Your task to perform on an android device: Add logitech g pro to the cart on target Image 0: 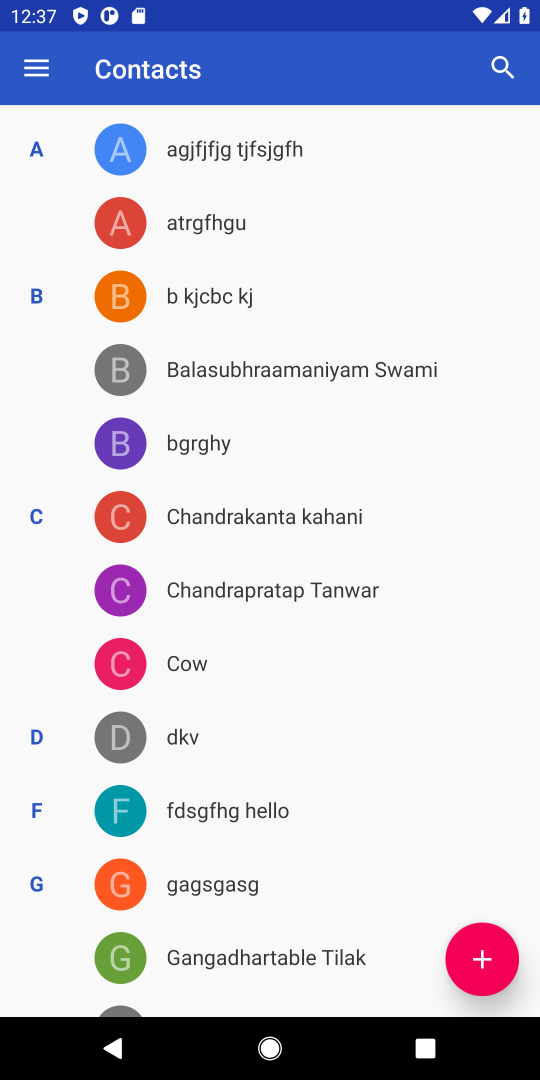
Step 0: press home button
Your task to perform on an android device: Add logitech g pro to the cart on target Image 1: 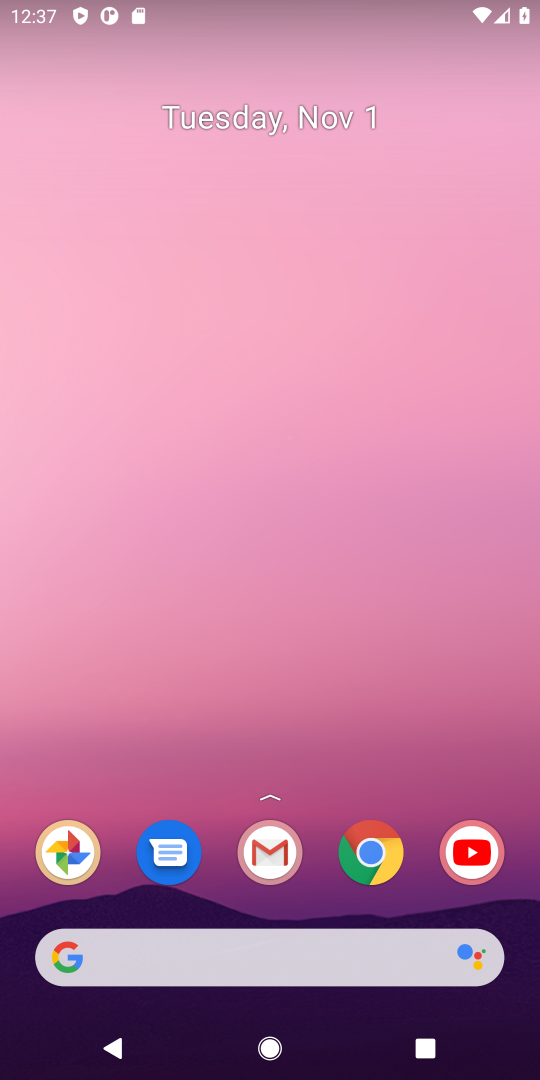
Step 1: click (384, 871)
Your task to perform on an android device: Add logitech g pro to the cart on target Image 2: 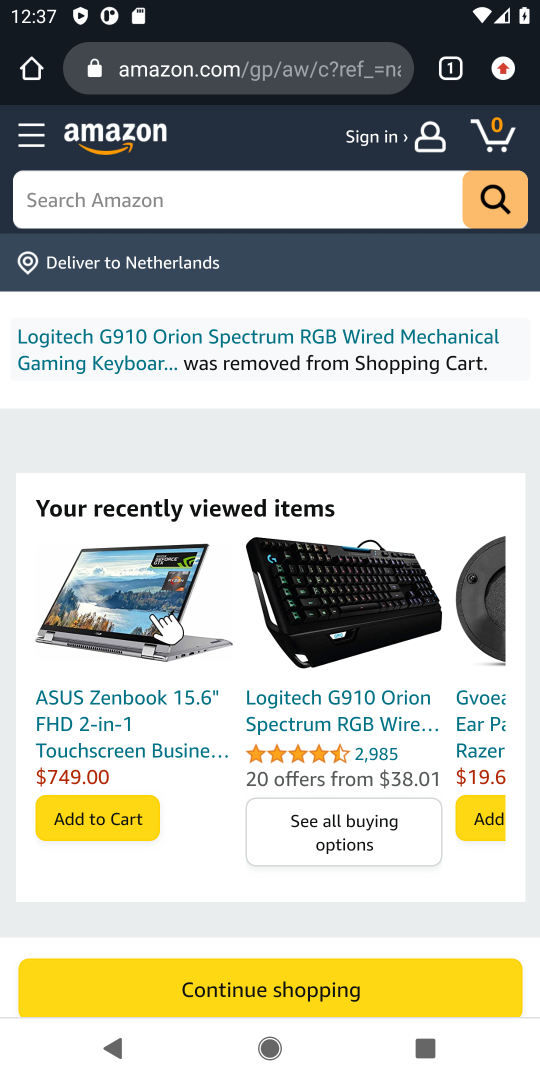
Step 2: click (260, 69)
Your task to perform on an android device: Add logitech g pro to the cart on target Image 3: 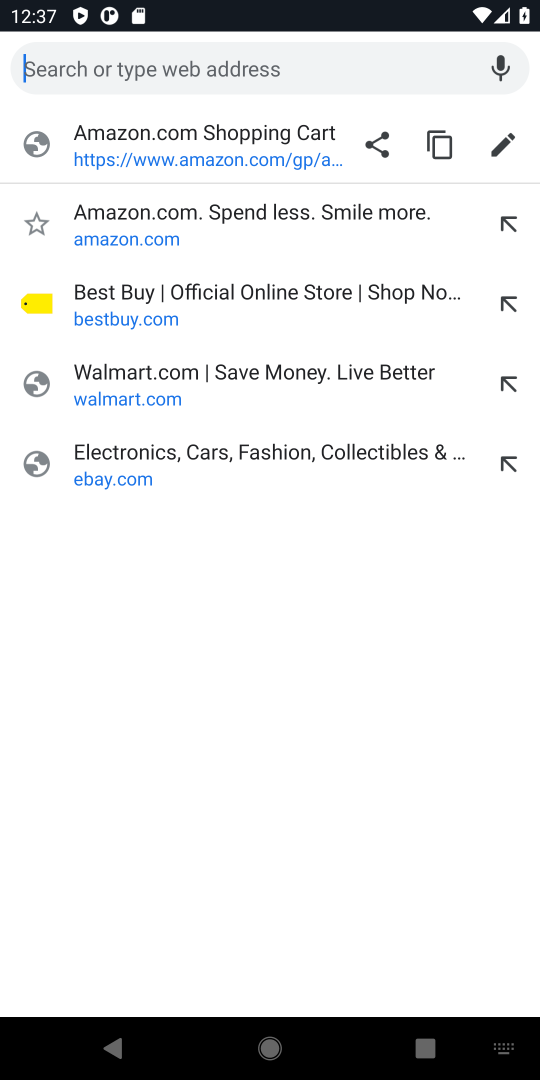
Step 3: type "target"
Your task to perform on an android device: Add logitech g pro to the cart on target Image 4: 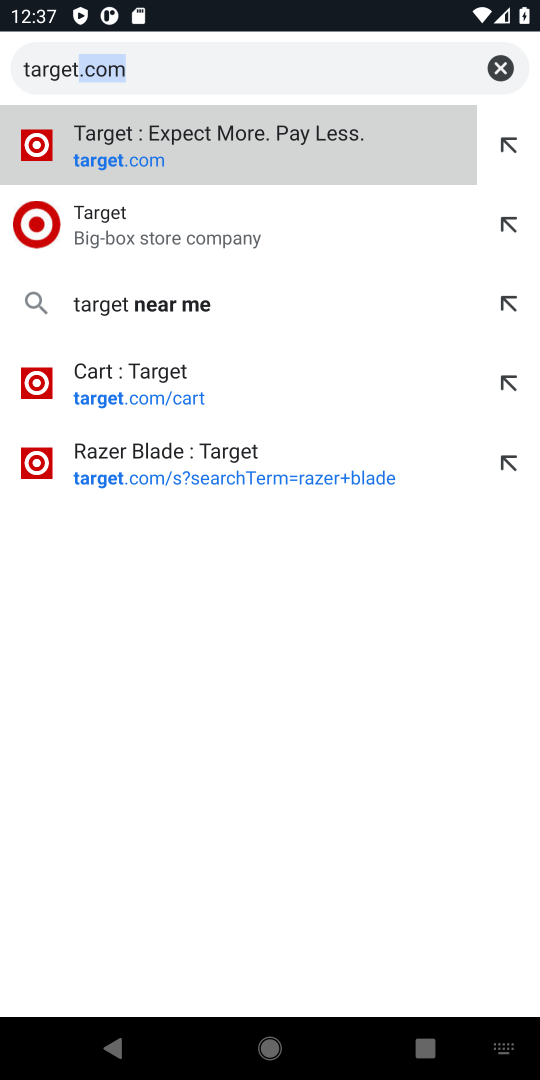
Step 4: type ""
Your task to perform on an android device: Add logitech g pro to the cart on target Image 5: 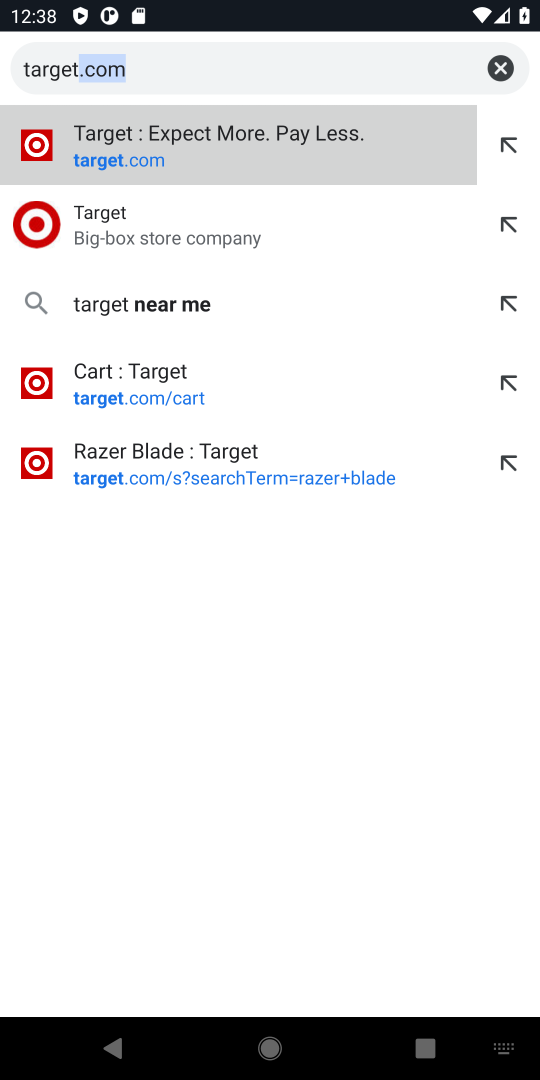
Step 5: press enter
Your task to perform on an android device: Add logitech g pro to the cart on target Image 6: 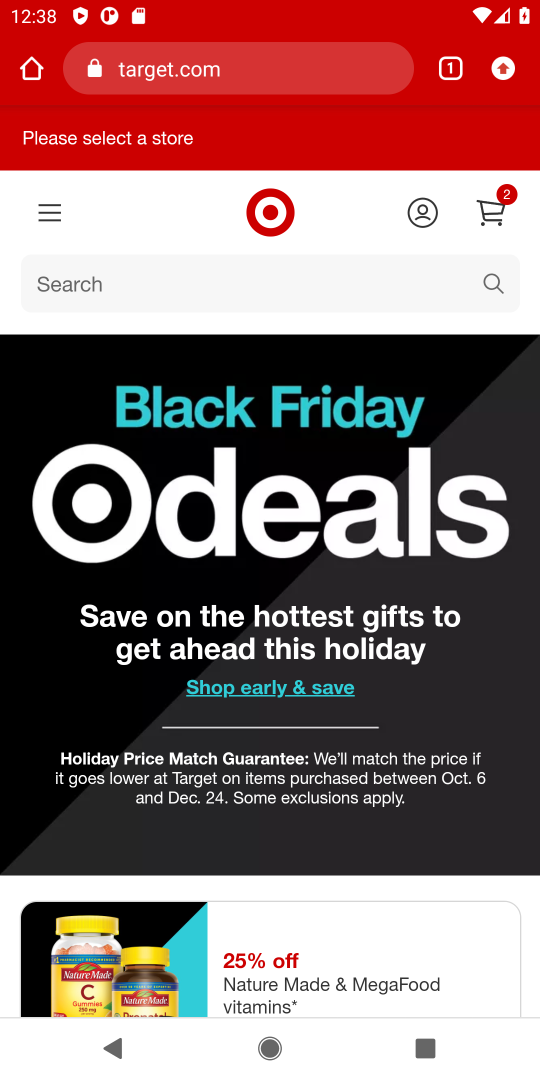
Step 6: click (333, 288)
Your task to perform on an android device: Add logitech g pro to the cart on target Image 7: 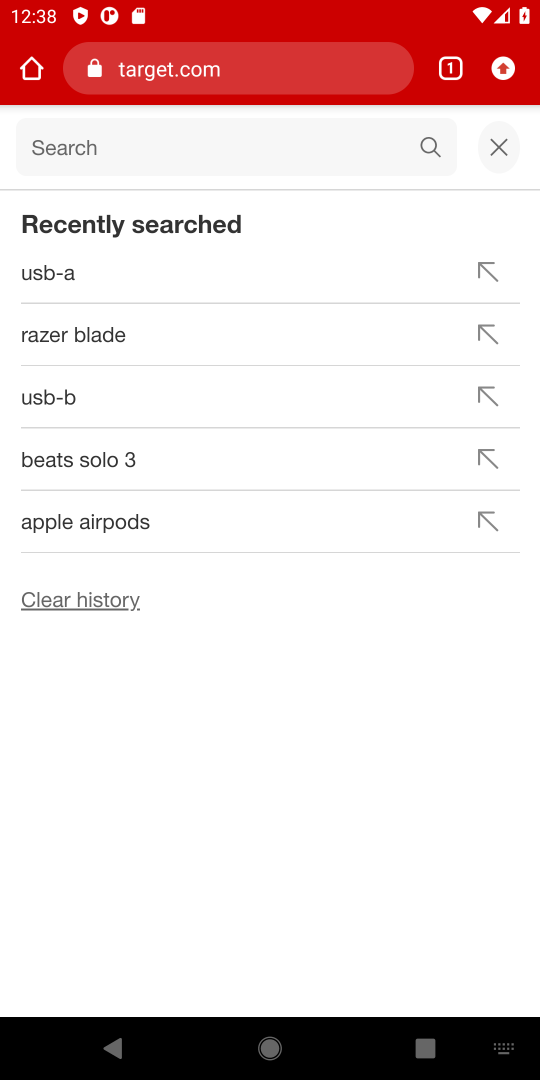
Step 7: type "logitech g pro"
Your task to perform on an android device: Add logitech g pro to the cart on target Image 8: 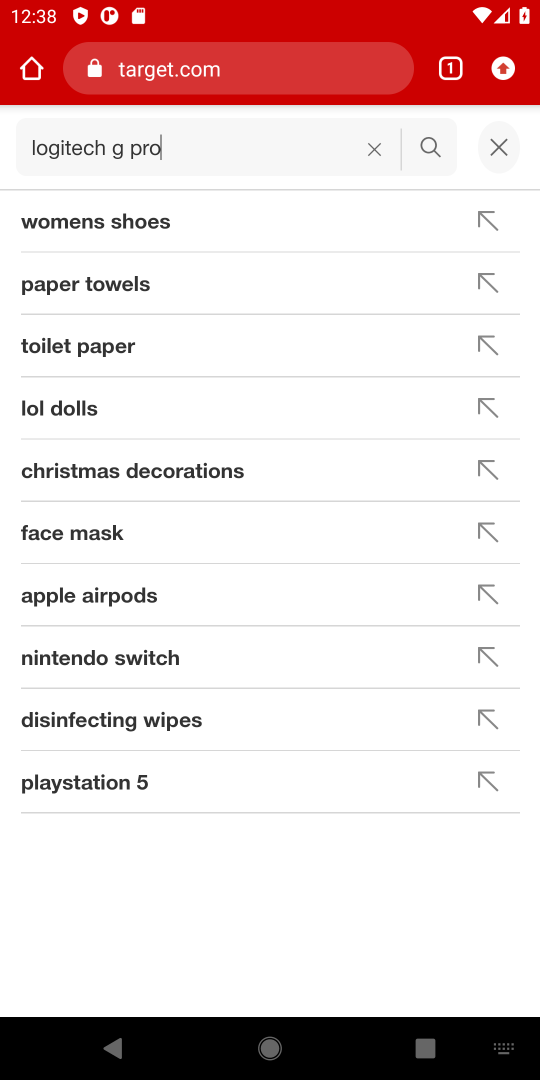
Step 8: type ""
Your task to perform on an android device: Add logitech g pro to the cart on target Image 9: 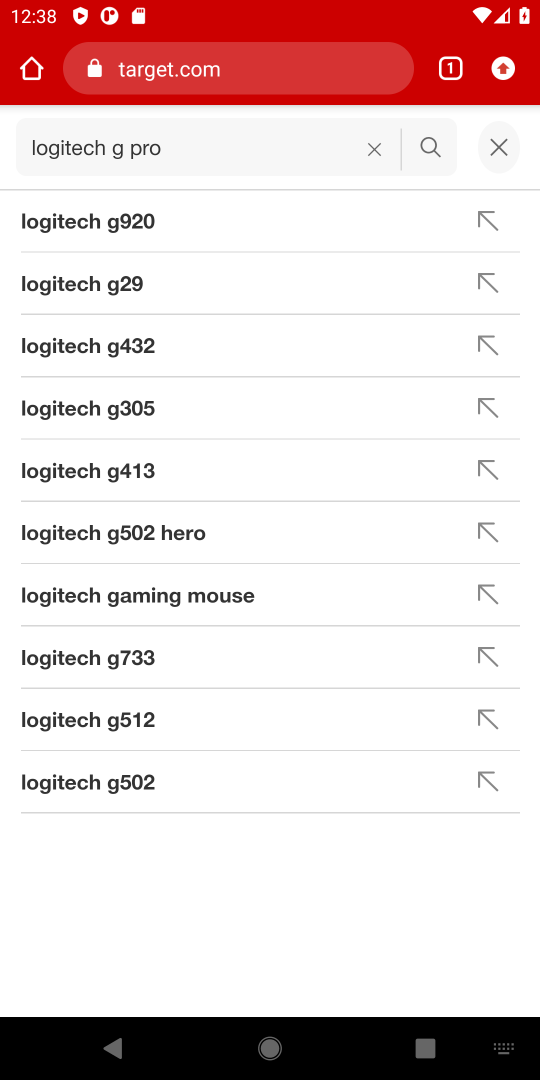
Step 9: press enter
Your task to perform on an android device: Add logitech g pro to the cart on target Image 10: 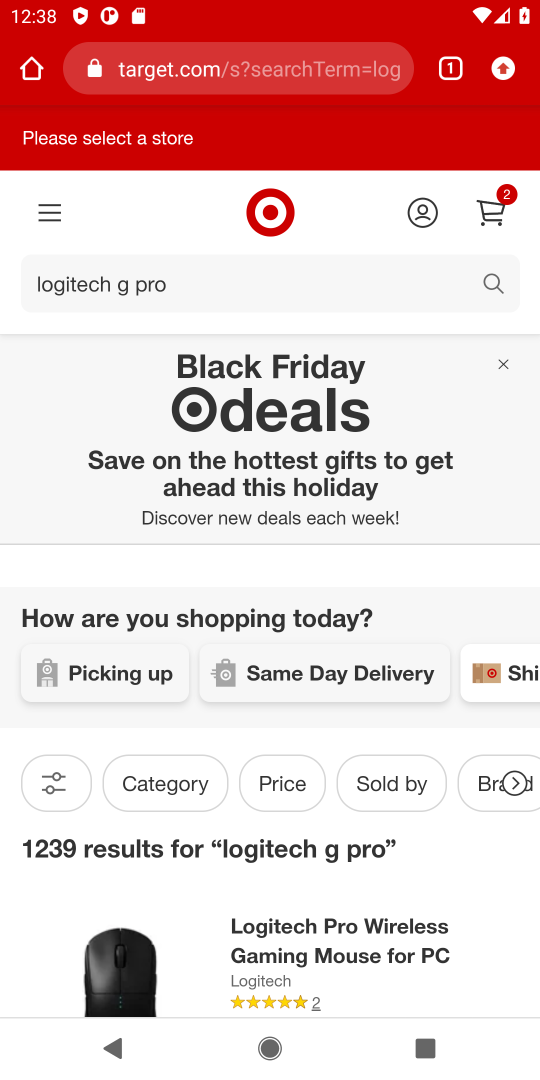
Step 10: task complete